Your task to perform on an android device: snooze an email in the gmail app Image 0: 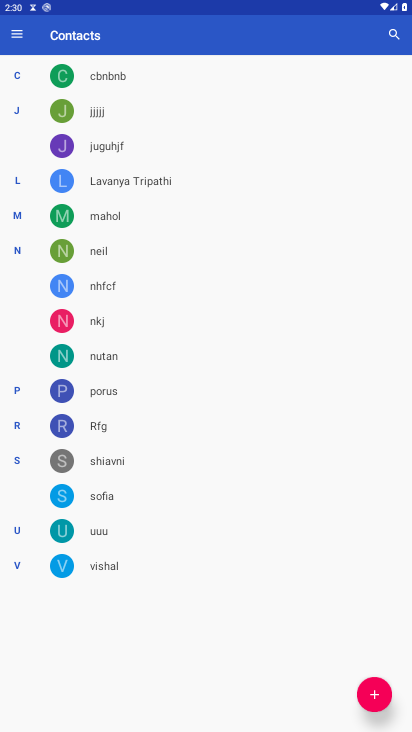
Step 0: press home button
Your task to perform on an android device: snooze an email in the gmail app Image 1: 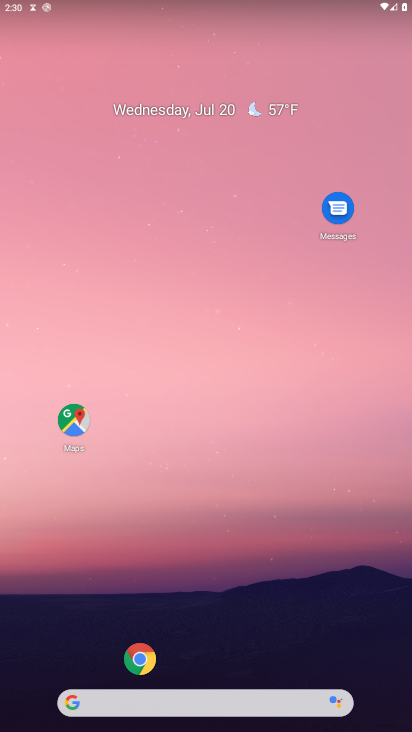
Step 1: drag from (12, 686) to (150, 295)
Your task to perform on an android device: snooze an email in the gmail app Image 2: 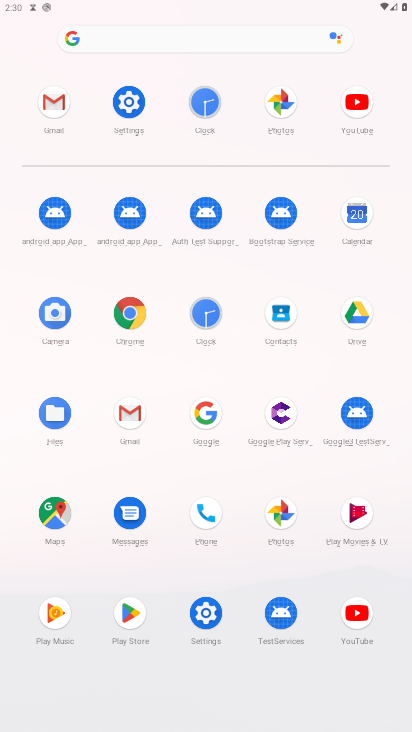
Step 2: click (134, 419)
Your task to perform on an android device: snooze an email in the gmail app Image 3: 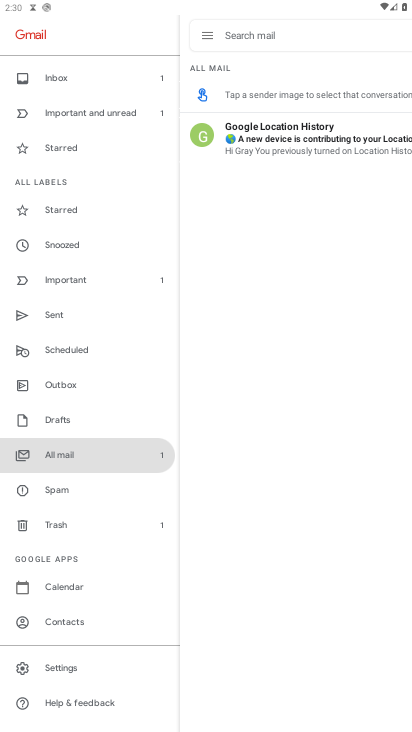
Step 3: click (62, 253)
Your task to perform on an android device: snooze an email in the gmail app Image 4: 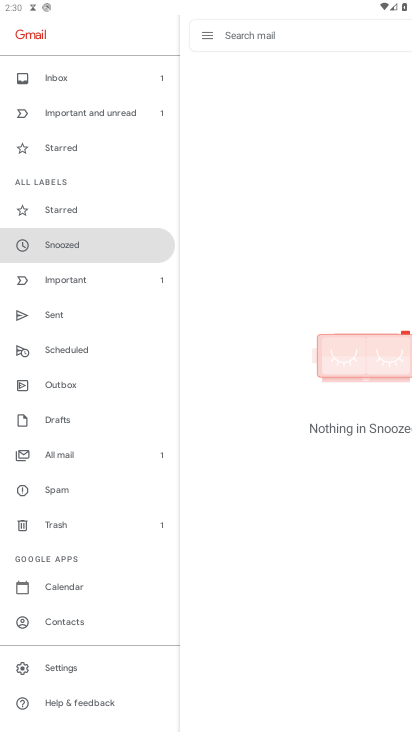
Step 4: task complete